Your task to perform on an android device: add a contact Image 0: 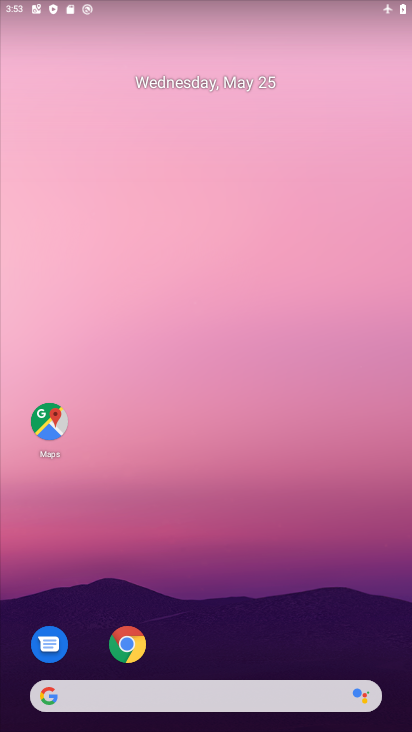
Step 0: drag from (298, 678) to (356, 5)
Your task to perform on an android device: add a contact Image 1: 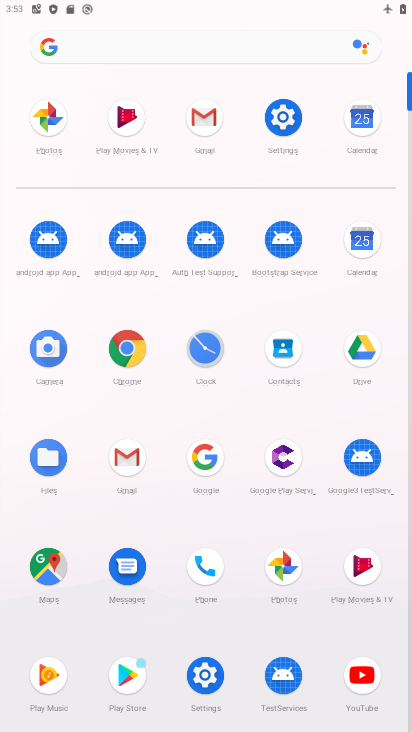
Step 1: click (286, 349)
Your task to perform on an android device: add a contact Image 2: 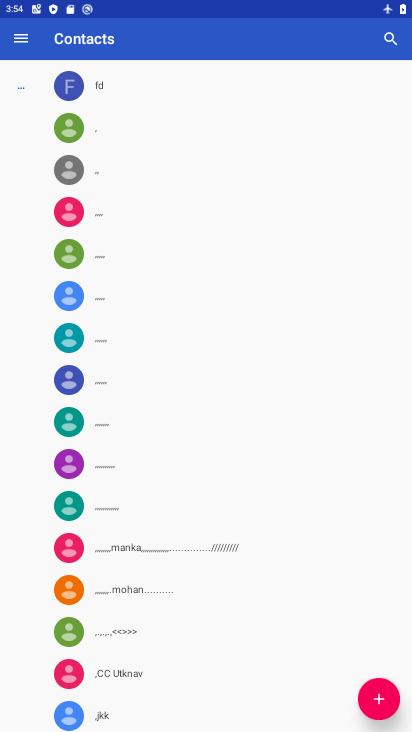
Step 2: click (362, 698)
Your task to perform on an android device: add a contact Image 3: 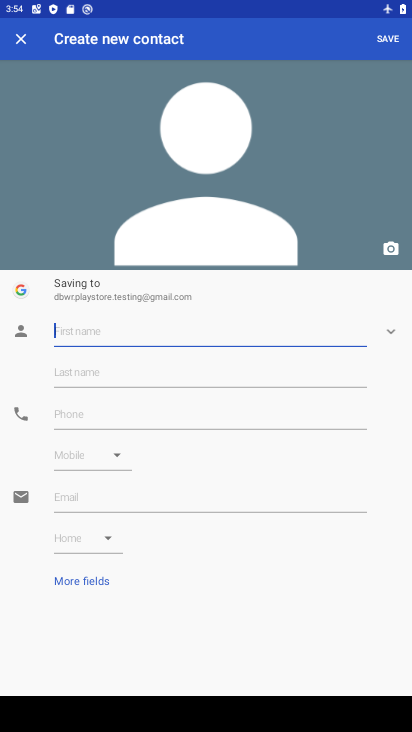
Step 3: click (92, 331)
Your task to perform on an android device: add a contact Image 4: 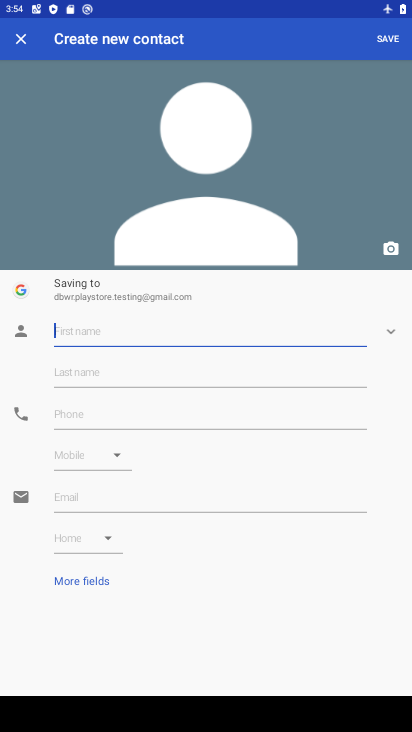
Step 4: type "vinu"
Your task to perform on an android device: add a contact Image 5: 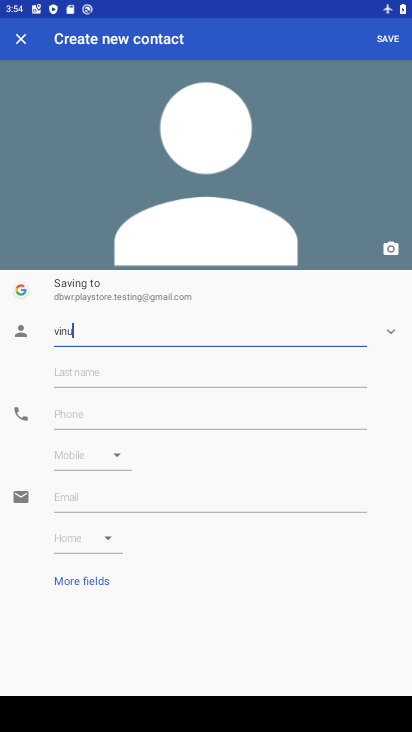
Step 5: click (81, 413)
Your task to perform on an android device: add a contact Image 6: 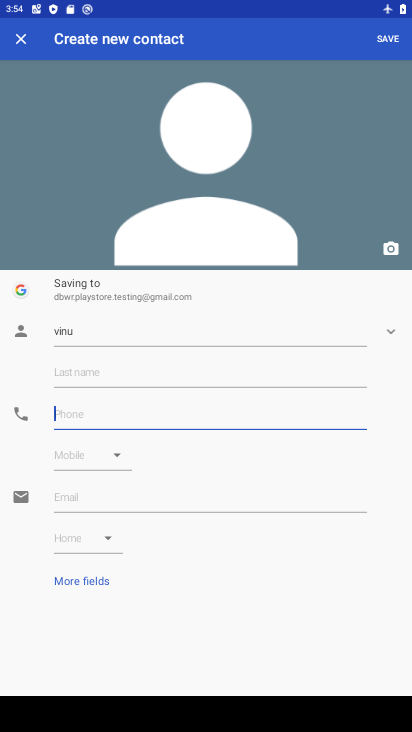
Step 6: type "9876554445"
Your task to perform on an android device: add a contact Image 7: 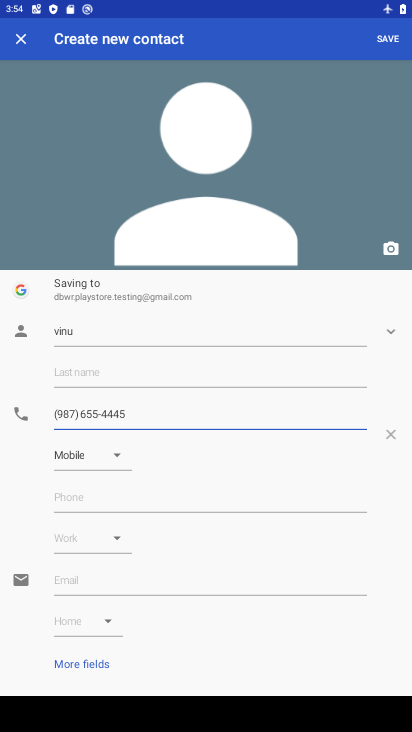
Step 7: click (386, 41)
Your task to perform on an android device: add a contact Image 8: 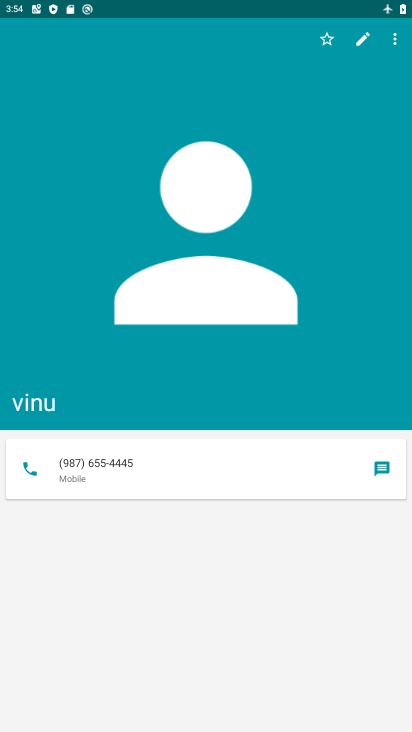
Step 8: task complete